Your task to perform on an android device: Go to calendar. Show me events next week Image 0: 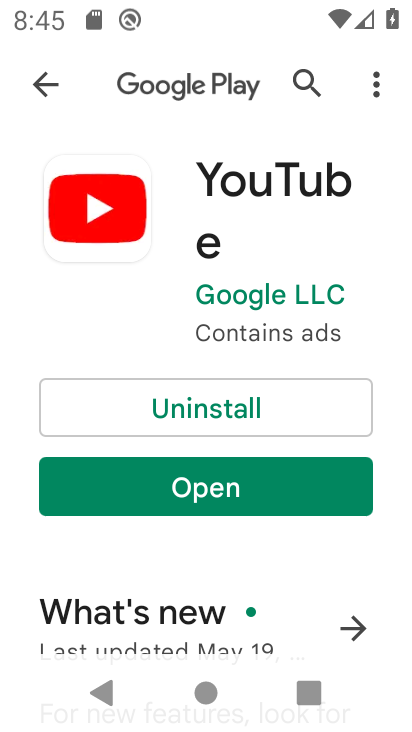
Step 0: press home button
Your task to perform on an android device: Go to calendar. Show me events next week Image 1: 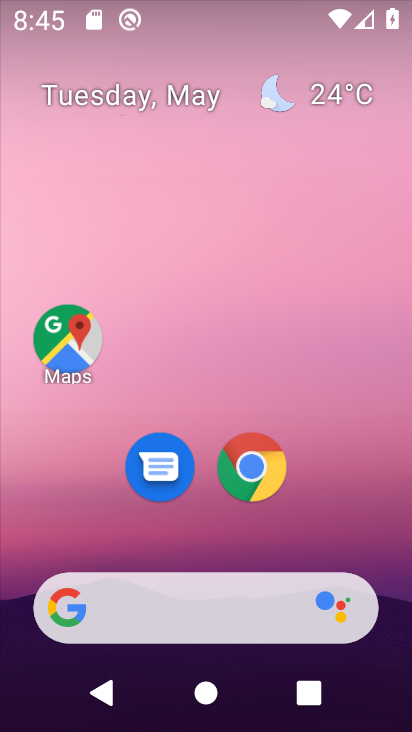
Step 1: drag from (391, 692) to (324, 155)
Your task to perform on an android device: Go to calendar. Show me events next week Image 2: 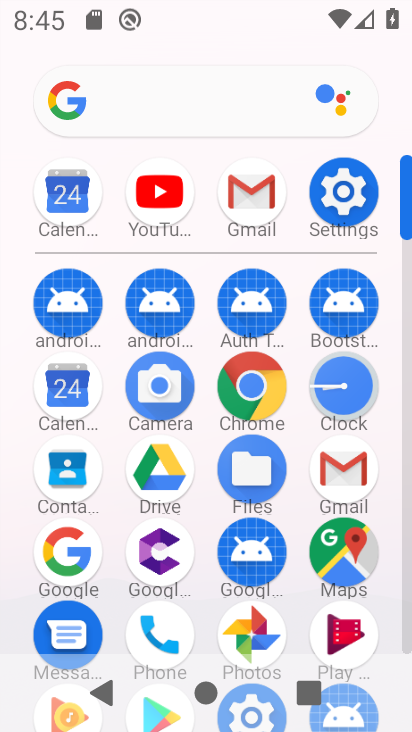
Step 2: click (69, 207)
Your task to perform on an android device: Go to calendar. Show me events next week Image 3: 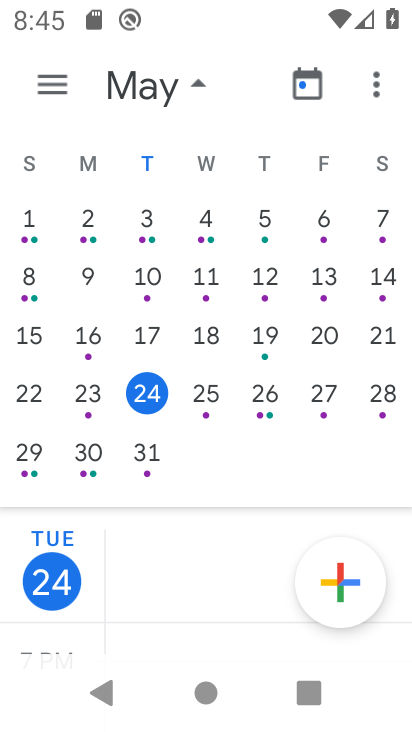
Step 3: click (90, 451)
Your task to perform on an android device: Go to calendar. Show me events next week Image 4: 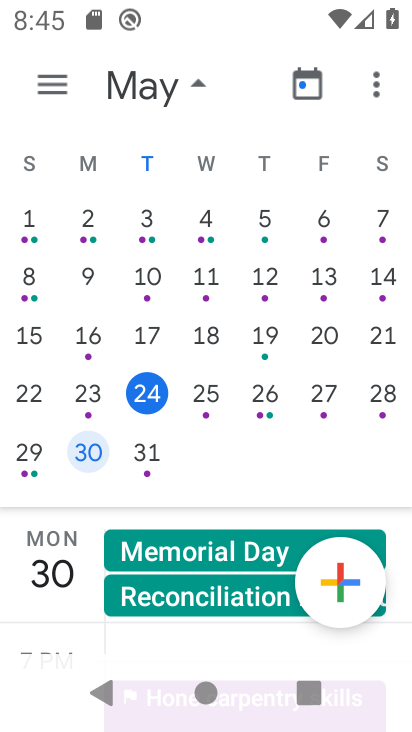
Step 4: click (58, 85)
Your task to perform on an android device: Go to calendar. Show me events next week Image 5: 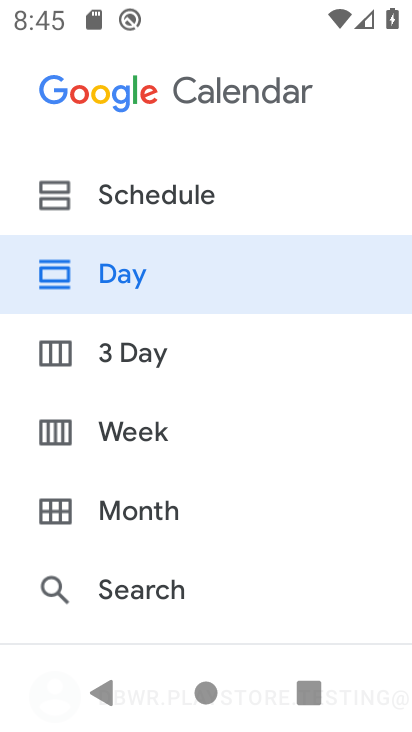
Step 5: click (115, 427)
Your task to perform on an android device: Go to calendar. Show me events next week Image 6: 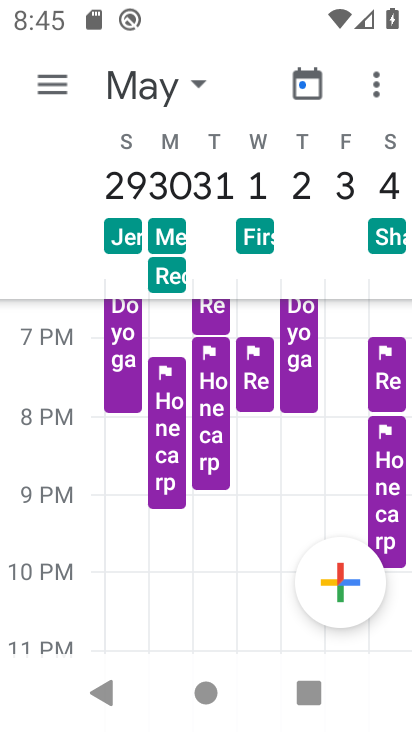
Step 6: task complete